Your task to perform on an android device: open a new tab in the chrome app Image 0: 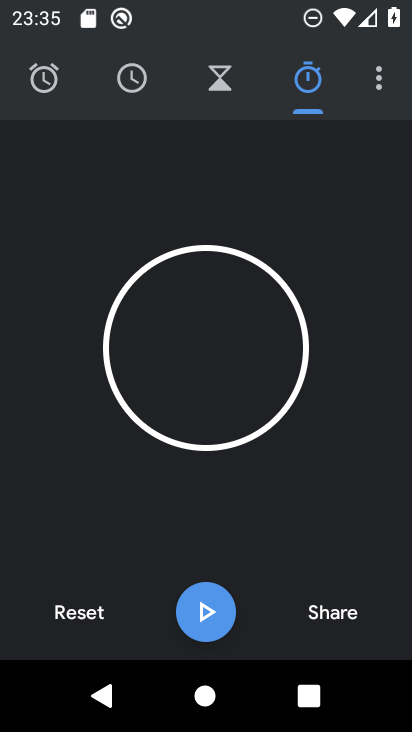
Step 0: press home button
Your task to perform on an android device: open a new tab in the chrome app Image 1: 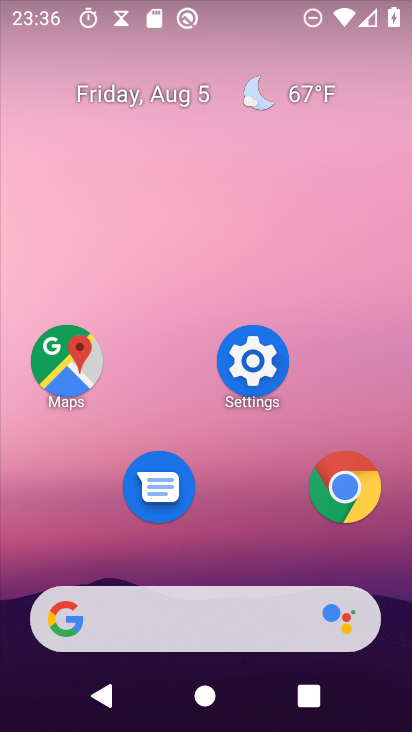
Step 1: click (335, 492)
Your task to perform on an android device: open a new tab in the chrome app Image 2: 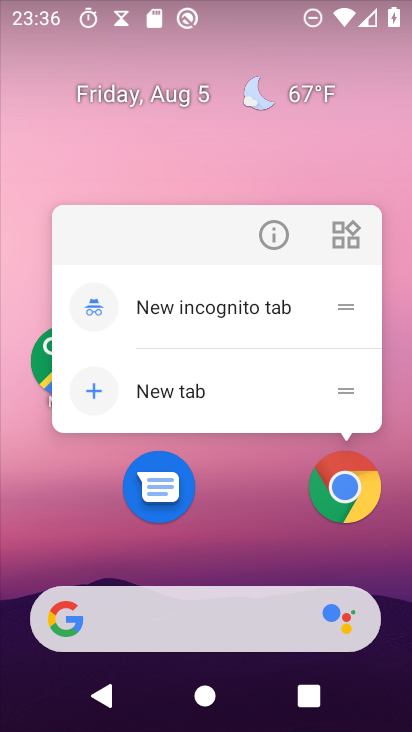
Step 2: click (335, 492)
Your task to perform on an android device: open a new tab in the chrome app Image 3: 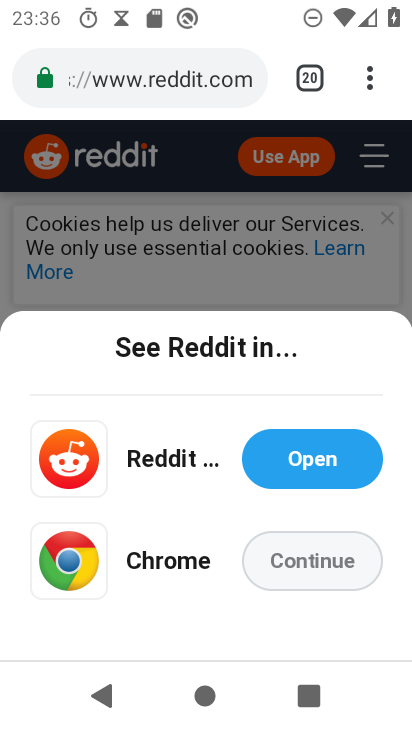
Step 3: task complete